Your task to perform on an android device: check storage Image 0: 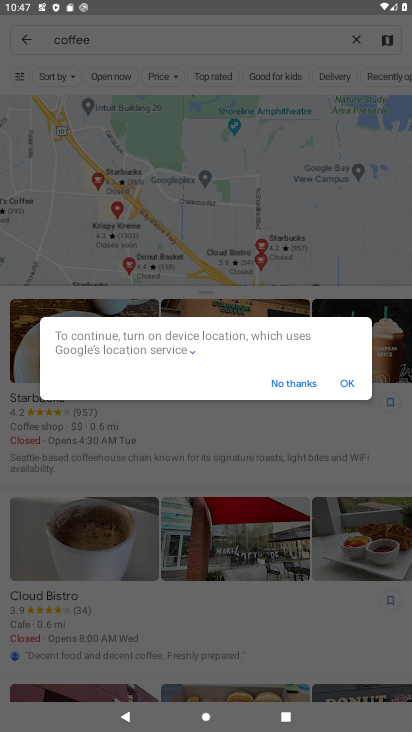
Step 0: press home button
Your task to perform on an android device: check storage Image 1: 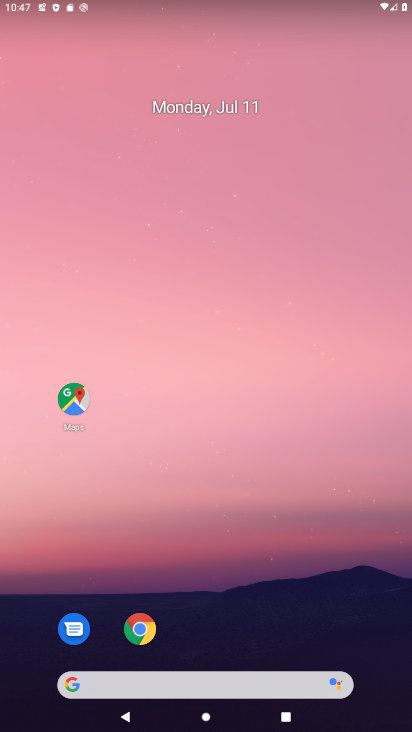
Step 1: drag from (204, 642) to (208, 212)
Your task to perform on an android device: check storage Image 2: 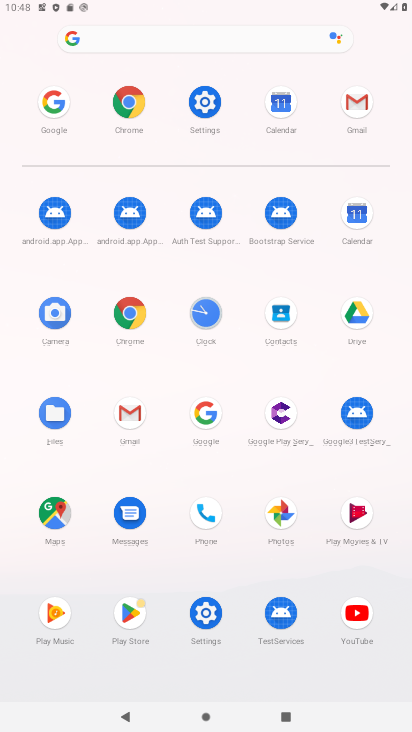
Step 2: click (216, 110)
Your task to perform on an android device: check storage Image 3: 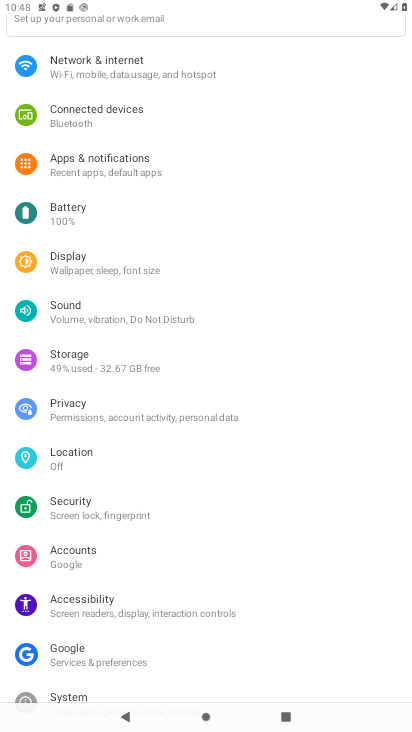
Step 3: drag from (175, 576) to (205, 293)
Your task to perform on an android device: check storage Image 4: 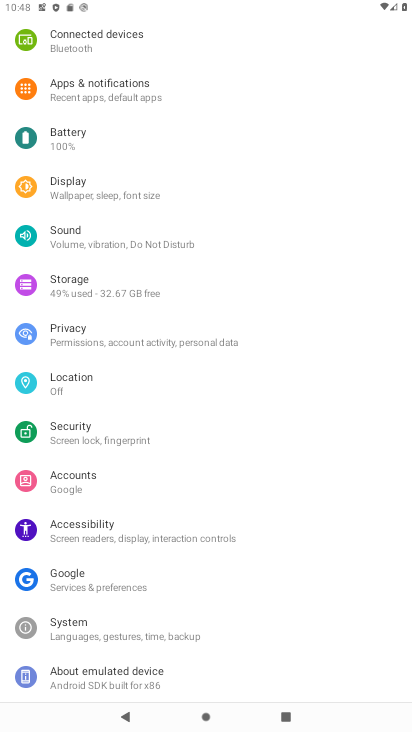
Step 4: click (140, 291)
Your task to perform on an android device: check storage Image 5: 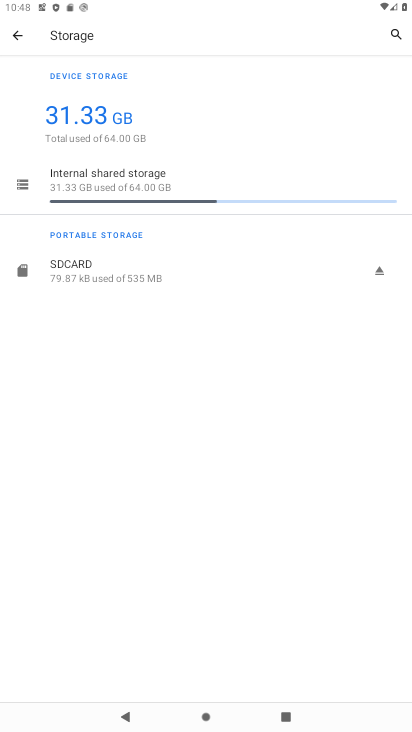
Step 5: click (197, 183)
Your task to perform on an android device: check storage Image 6: 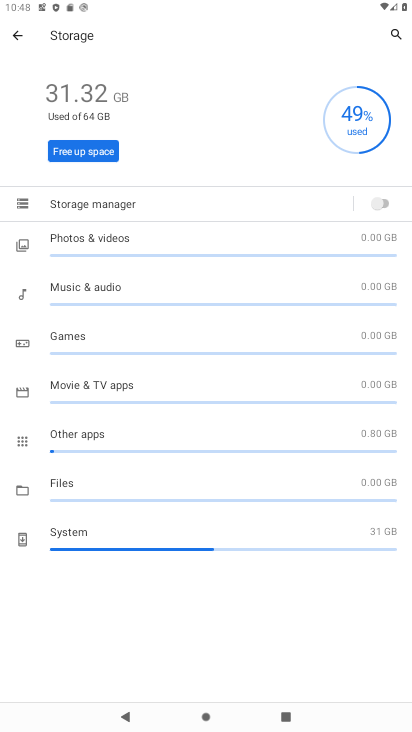
Step 6: task complete